Your task to perform on an android device: Open notification settings Image 0: 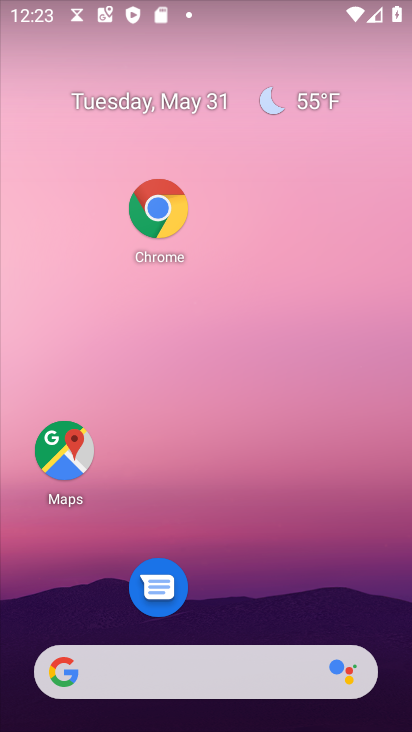
Step 0: drag from (241, 587) to (224, 183)
Your task to perform on an android device: Open notification settings Image 1: 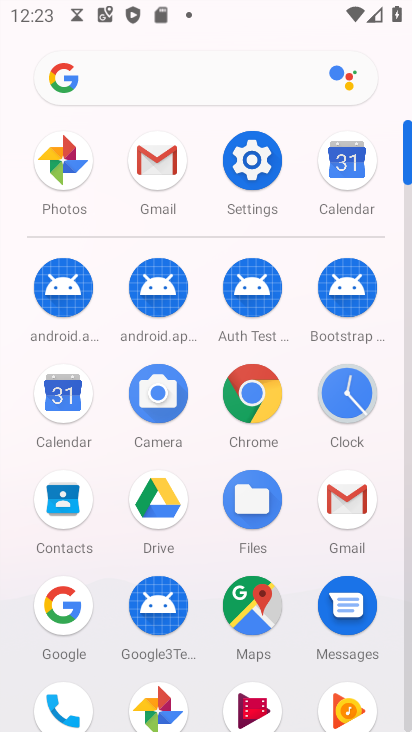
Step 1: click (239, 185)
Your task to perform on an android device: Open notification settings Image 2: 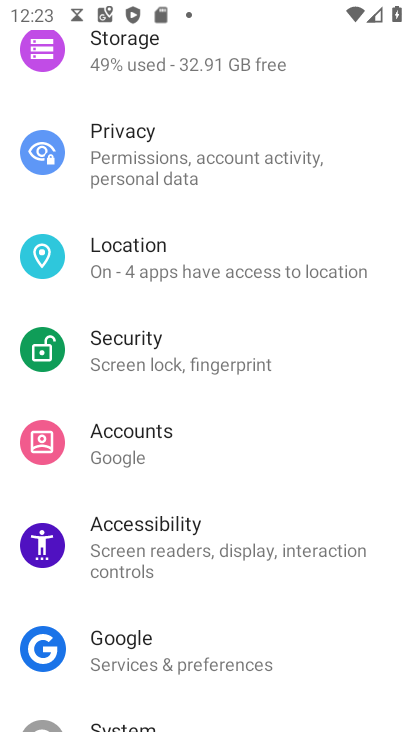
Step 2: drag from (232, 150) to (243, 713)
Your task to perform on an android device: Open notification settings Image 3: 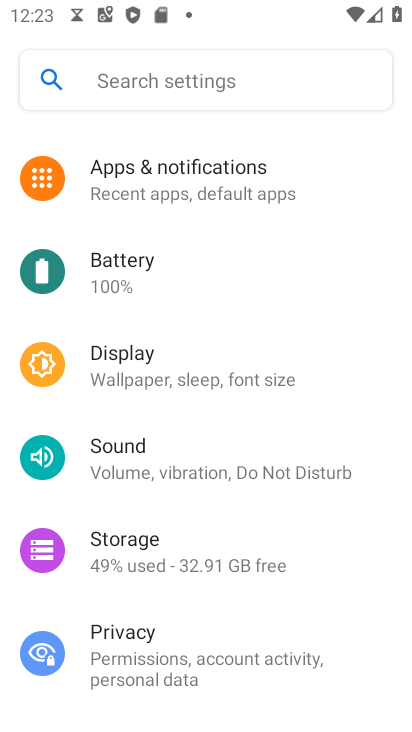
Step 3: click (200, 184)
Your task to perform on an android device: Open notification settings Image 4: 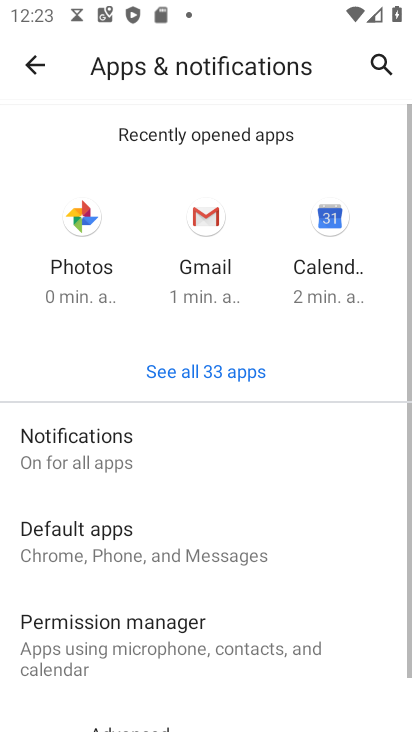
Step 4: click (55, 451)
Your task to perform on an android device: Open notification settings Image 5: 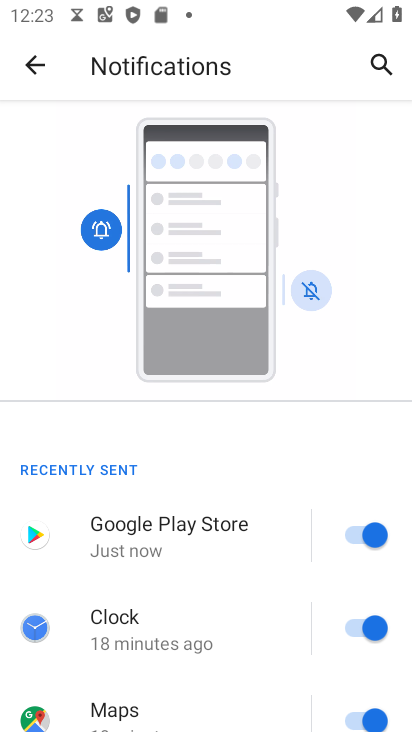
Step 5: task complete